Your task to perform on an android device: Go to Maps Image 0: 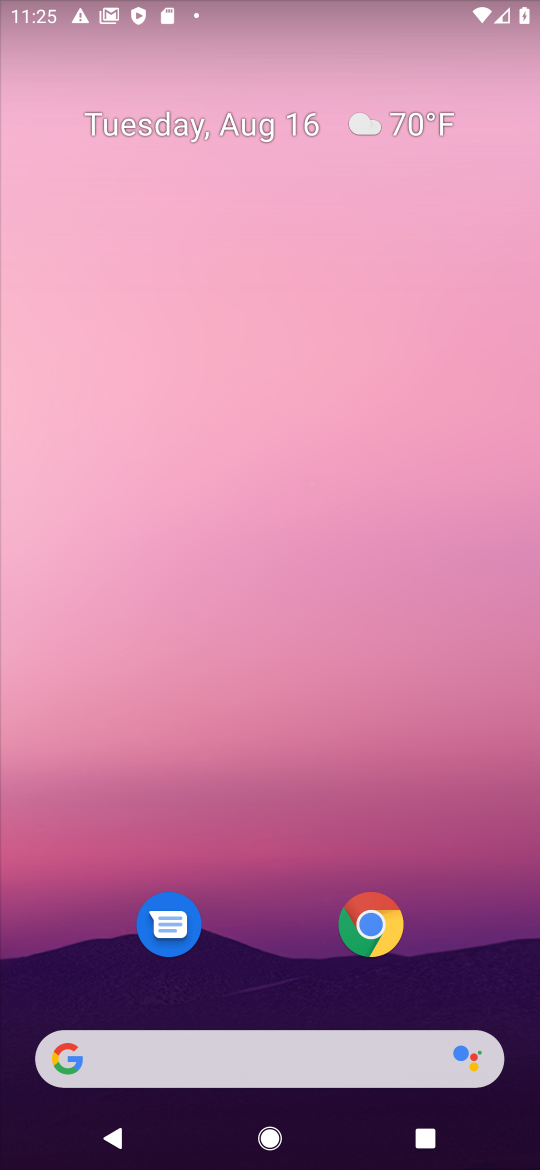
Step 0: drag from (273, 981) to (392, 66)
Your task to perform on an android device: Go to Maps Image 1: 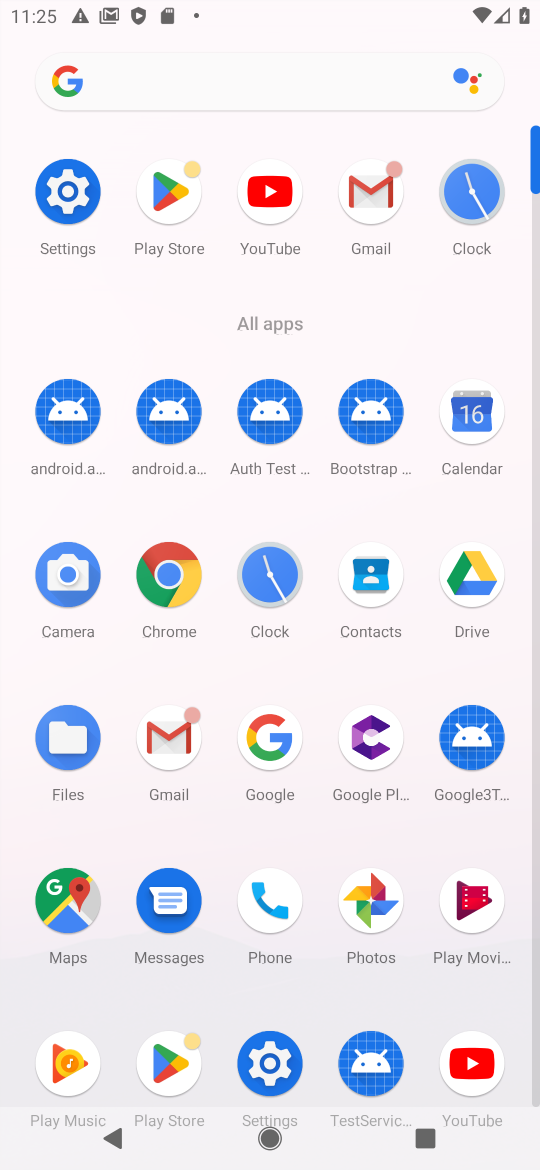
Step 1: drag from (315, 1001) to (264, 124)
Your task to perform on an android device: Go to Maps Image 2: 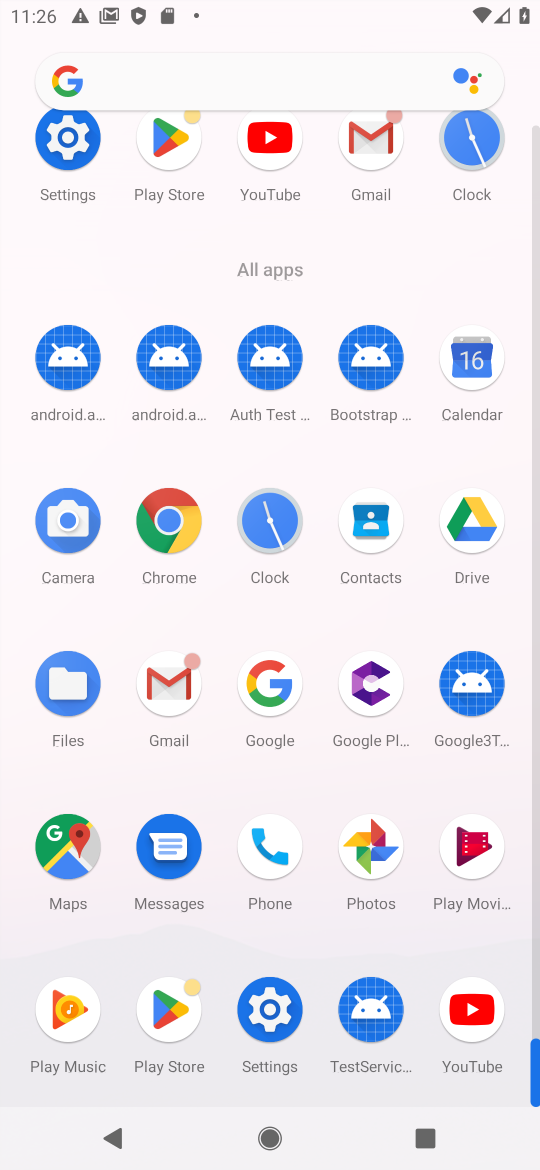
Step 2: click (74, 854)
Your task to perform on an android device: Go to Maps Image 3: 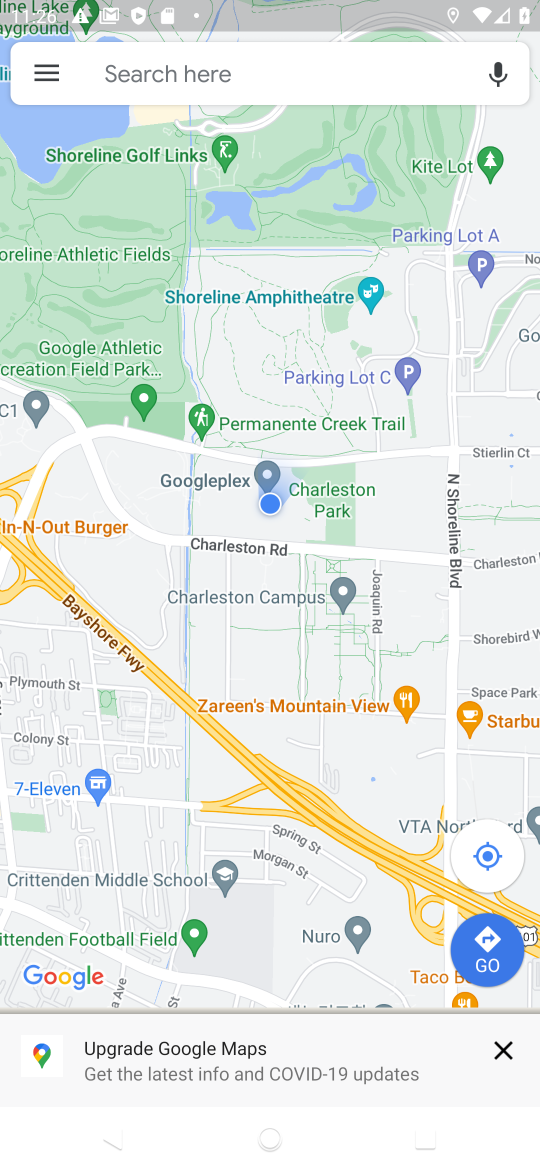
Step 3: task complete